Your task to perform on an android device: turn off translation in the chrome app Image 0: 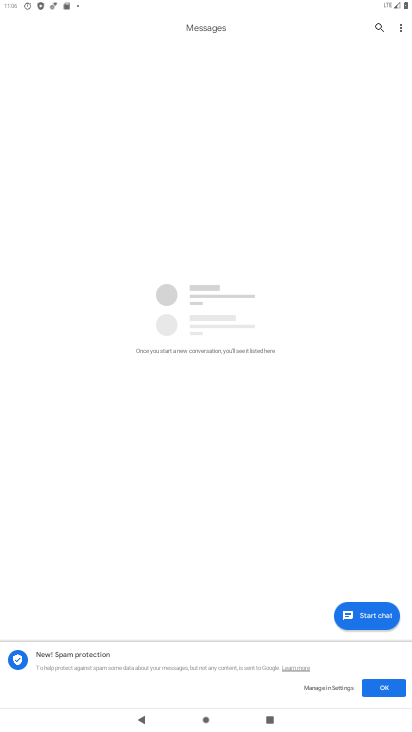
Step 0: press home button
Your task to perform on an android device: turn off translation in the chrome app Image 1: 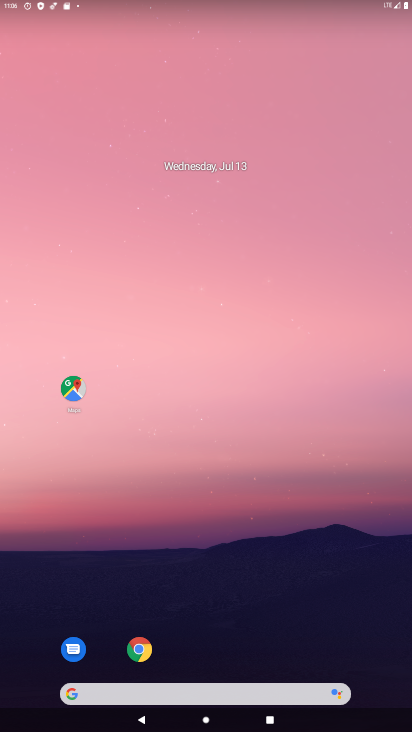
Step 1: click (140, 650)
Your task to perform on an android device: turn off translation in the chrome app Image 2: 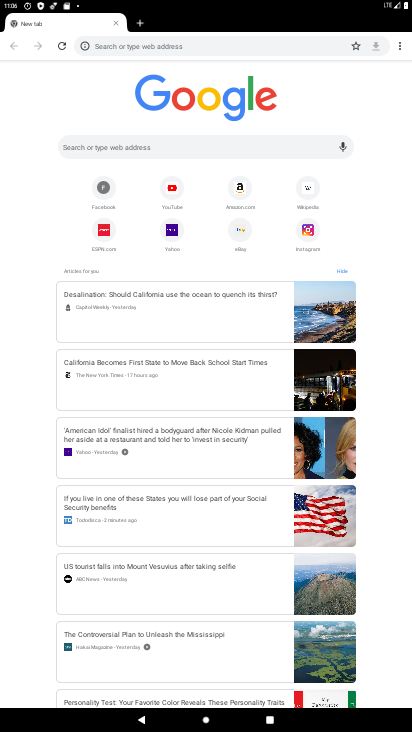
Step 2: click (400, 45)
Your task to perform on an android device: turn off translation in the chrome app Image 3: 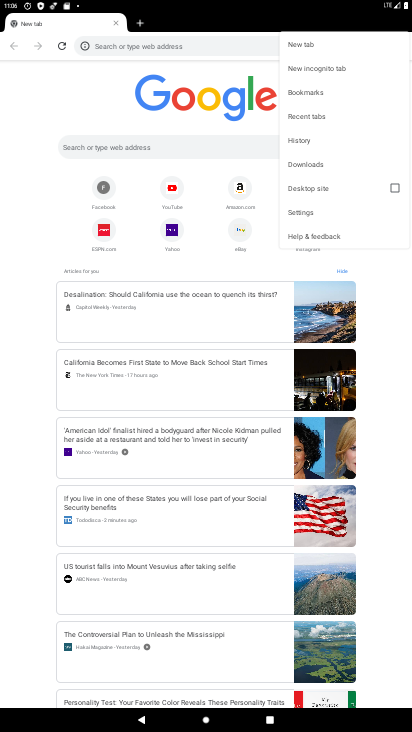
Step 3: click (305, 212)
Your task to perform on an android device: turn off translation in the chrome app Image 4: 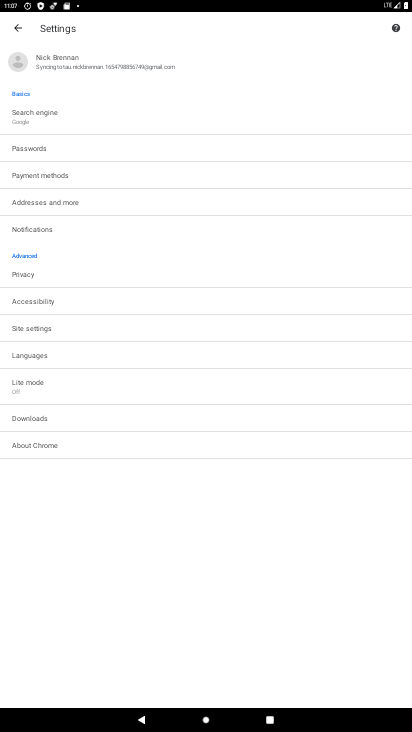
Step 4: click (31, 354)
Your task to perform on an android device: turn off translation in the chrome app Image 5: 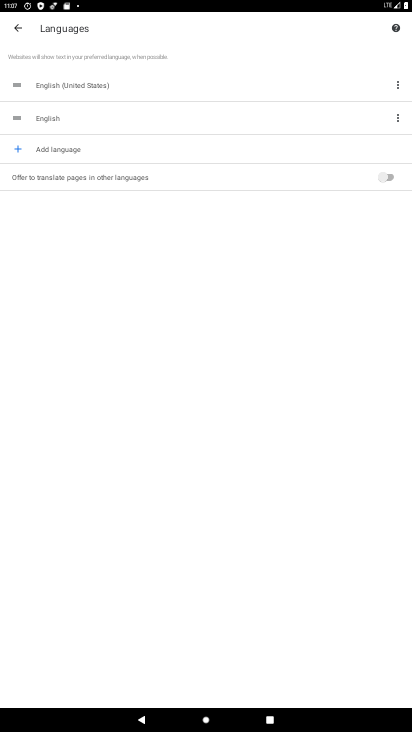
Step 5: task complete